Your task to perform on an android device: open the mobile data screen to see how much data has been used Image 0: 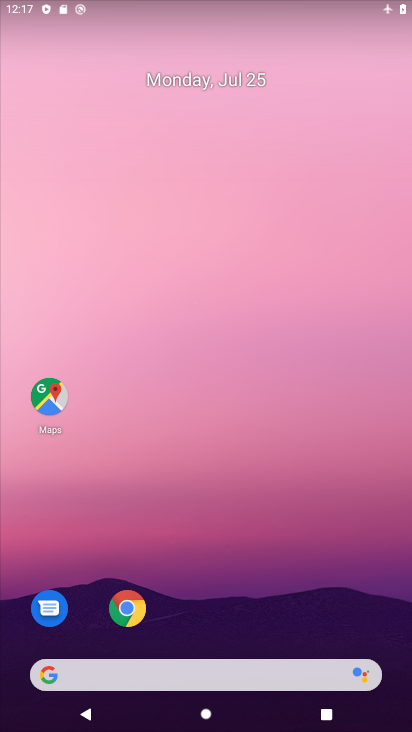
Step 0: drag from (261, 551) to (218, 2)
Your task to perform on an android device: open the mobile data screen to see how much data has been used Image 1: 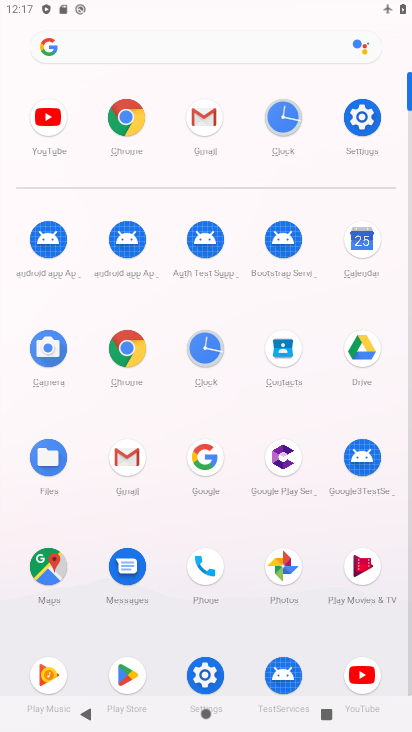
Step 1: click (353, 120)
Your task to perform on an android device: open the mobile data screen to see how much data has been used Image 2: 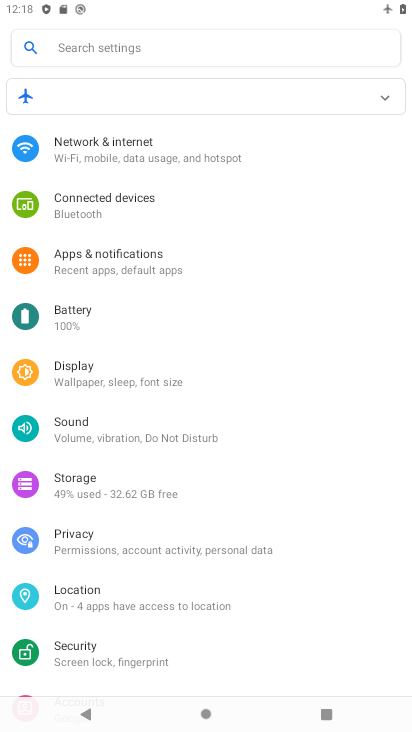
Step 2: click (151, 166)
Your task to perform on an android device: open the mobile data screen to see how much data has been used Image 3: 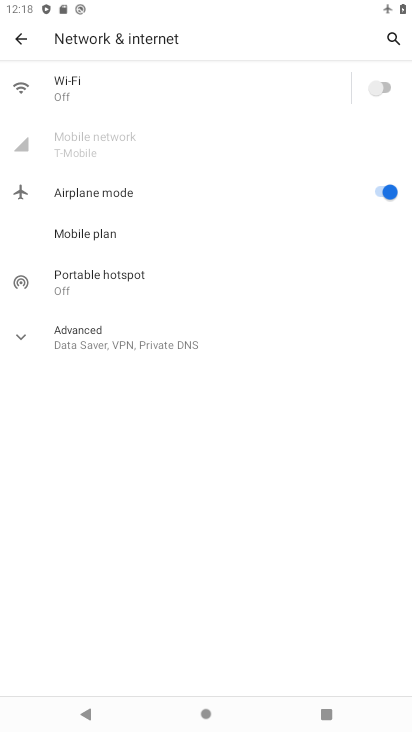
Step 3: click (125, 164)
Your task to perform on an android device: open the mobile data screen to see how much data has been used Image 4: 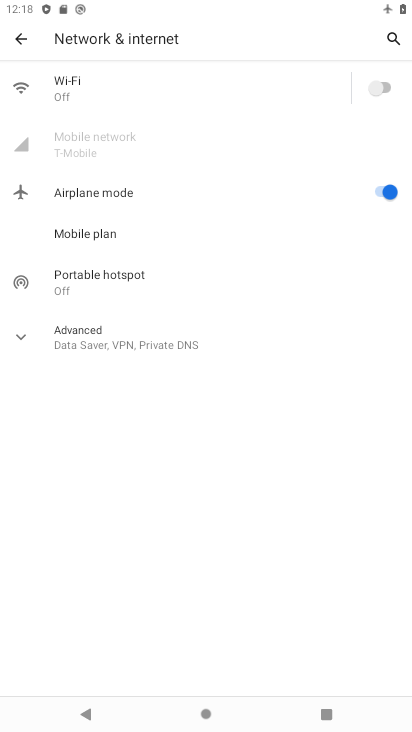
Step 4: click (370, 203)
Your task to perform on an android device: open the mobile data screen to see how much data has been used Image 5: 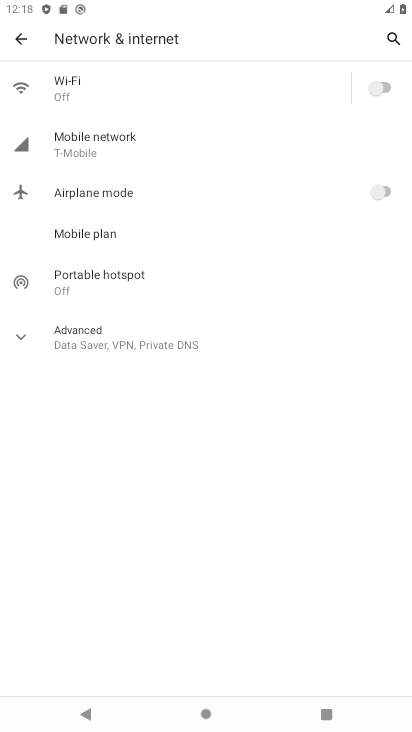
Step 5: click (156, 148)
Your task to perform on an android device: open the mobile data screen to see how much data has been used Image 6: 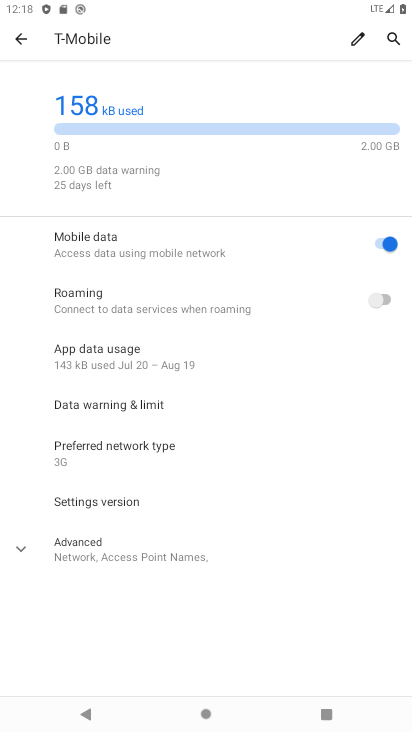
Step 6: task complete